Your task to perform on an android device: check android version Image 0: 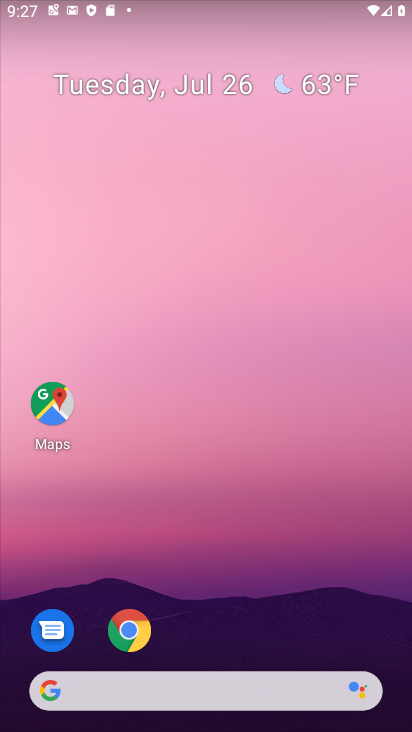
Step 0: press home button
Your task to perform on an android device: check android version Image 1: 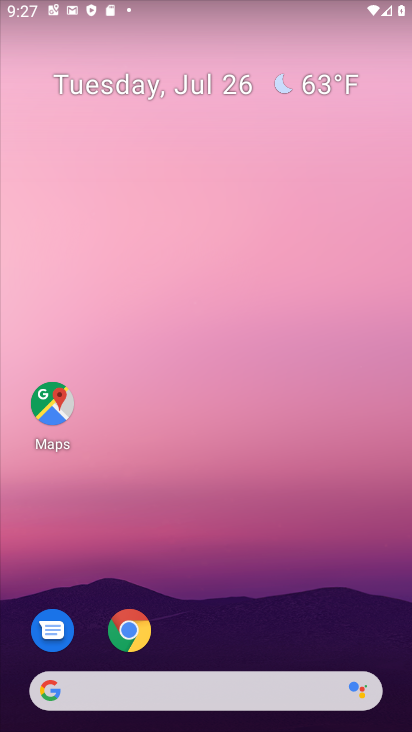
Step 1: drag from (232, 654) to (277, 12)
Your task to perform on an android device: check android version Image 2: 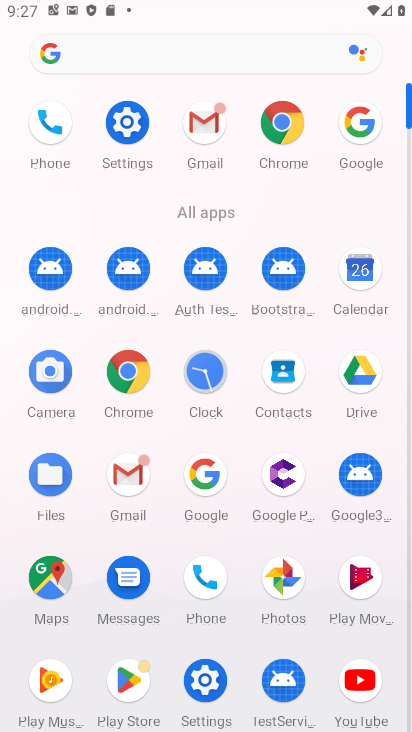
Step 2: click (127, 114)
Your task to perform on an android device: check android version Image 3: 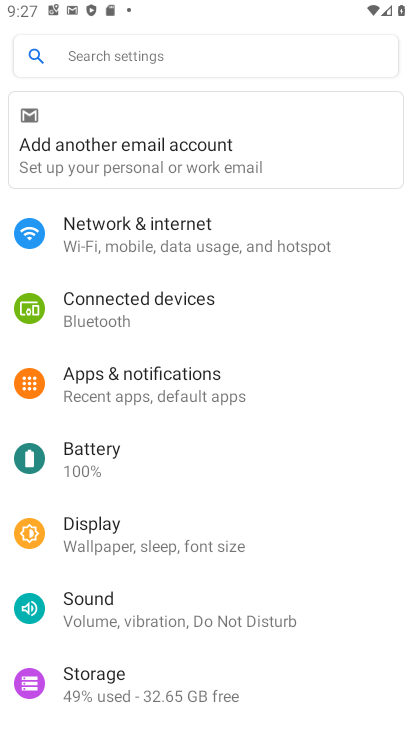
Step 3: drag from (187, 698) to (221, 83)
Your task to perform on an android device: check android version Image 4: 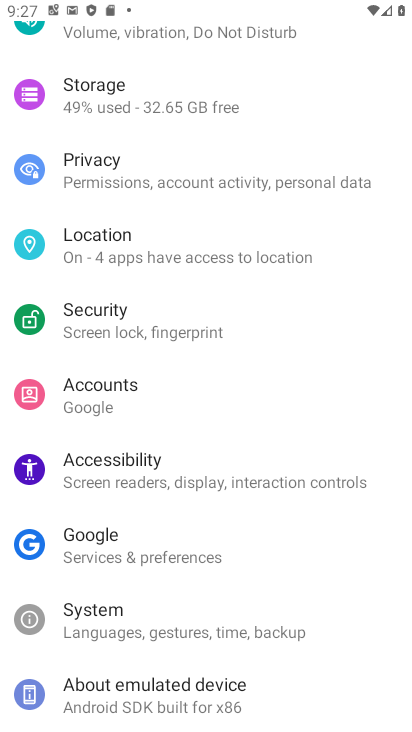
Step 4: click (234, 672)
Your task to perform on an android device: check android version Image 5: 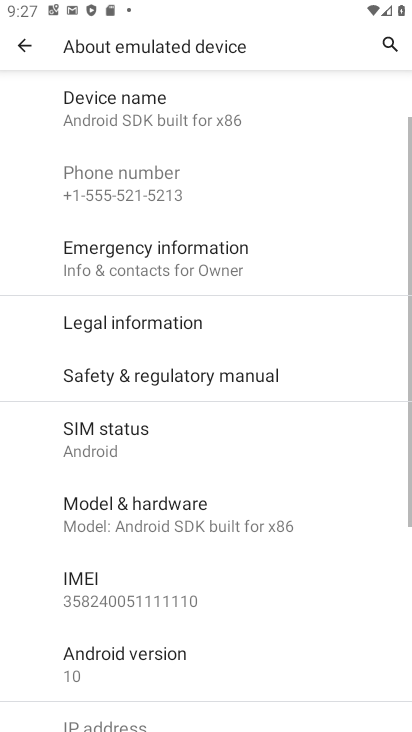
Step 5: click (120, 667)
Your task to perform on an android device: check android version Image 6: 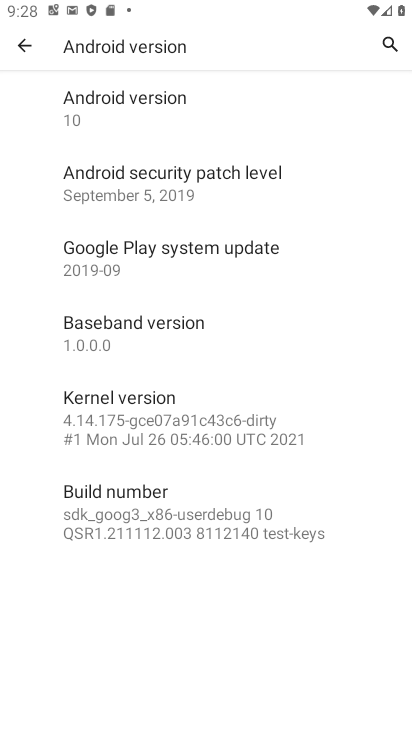
Step 6: task complete